Your task to perform on an android device: Open Google Chrome Image 0: 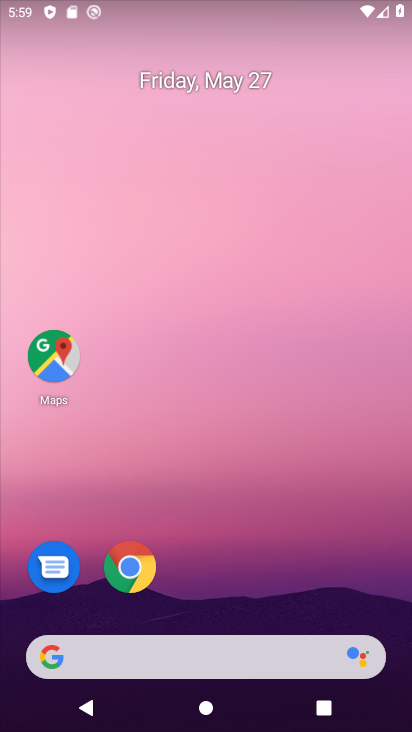
Step 0: click (131, 567)
Your task to perform on an android device: Open Google Chrome Image 1: 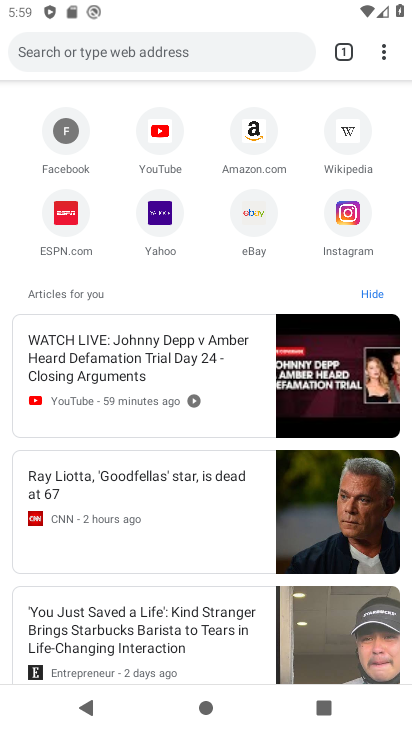
Step 1: task complete